Your task to perform on an android device: Go to settings Image 0: 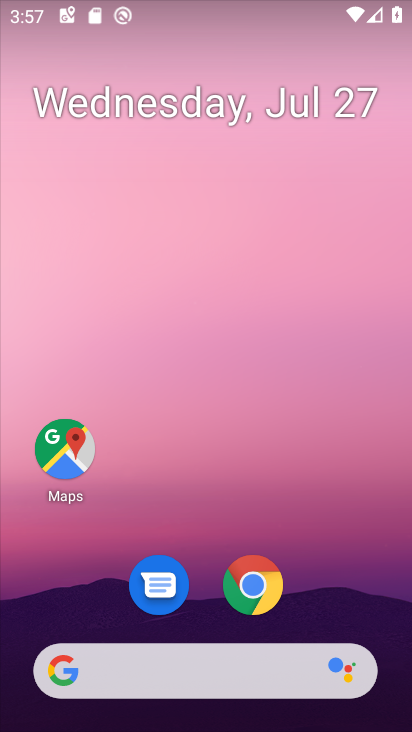
Step 0: drag from (327, 608) to (303, 16)
Your task to perform on an android device: Go to settings Image 1: 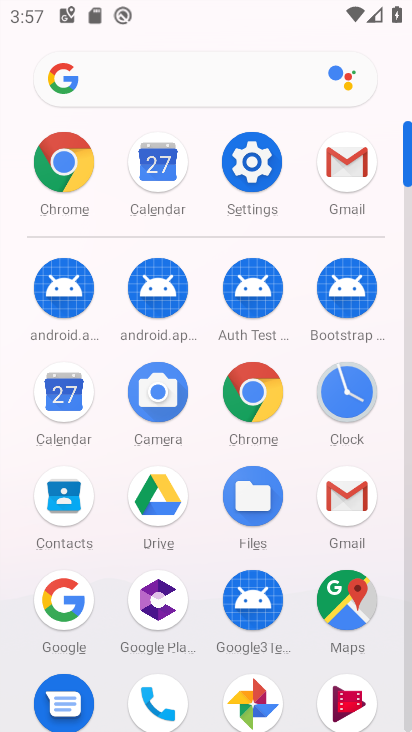
Step 1: click (264, 160)
Your task to perform on an android device: Go to settings Image 2: 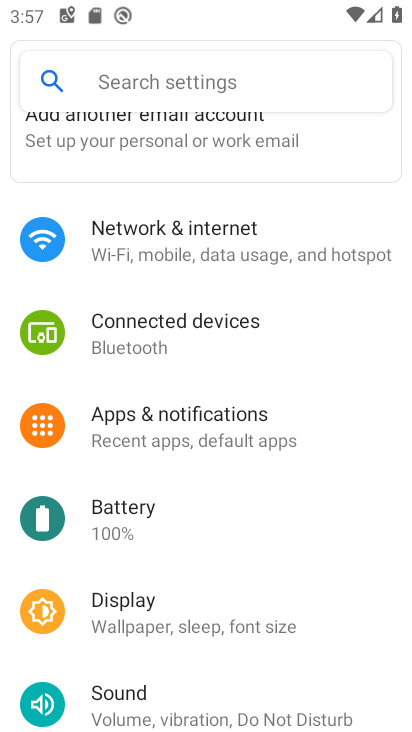
Step 2: task complete